Your task to perform on an android device: Open location settings Image 0: 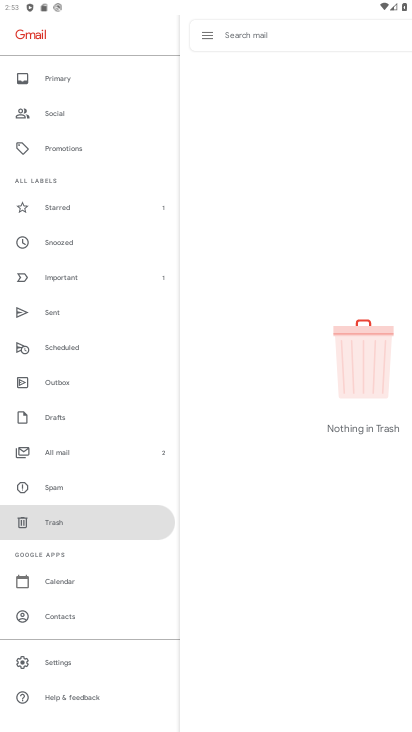
Step 0: press home button
Your task to perform on an android device: Open location settings Image 1: 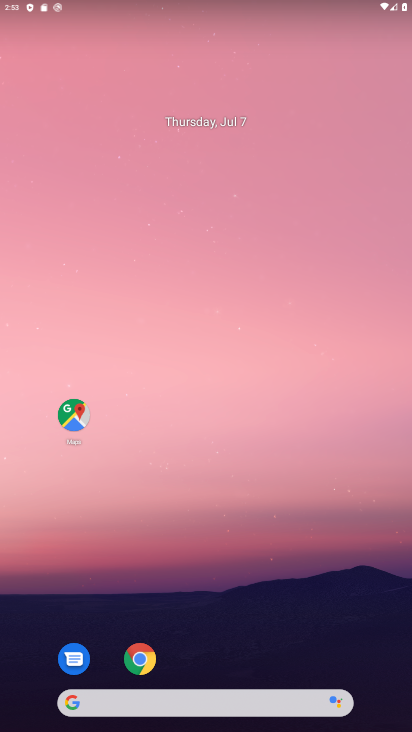
Step 1: drag from (226, 624) to (169, 169)
Your task to perform on an android device: Open location settings Image 2: 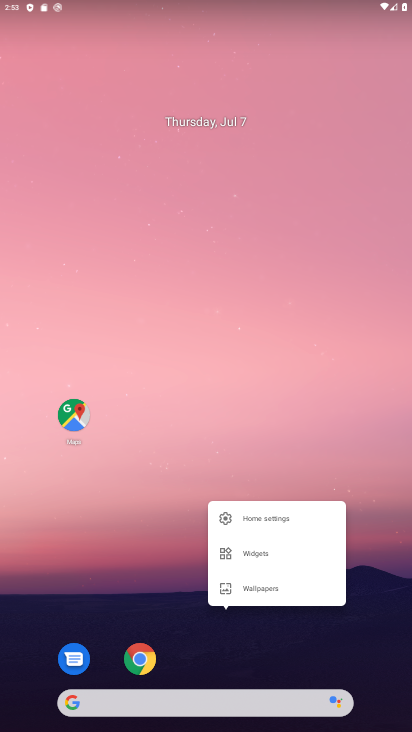
Step 2: click (397, 549)
Your task to perform on an android device: Open location settings Image 3: 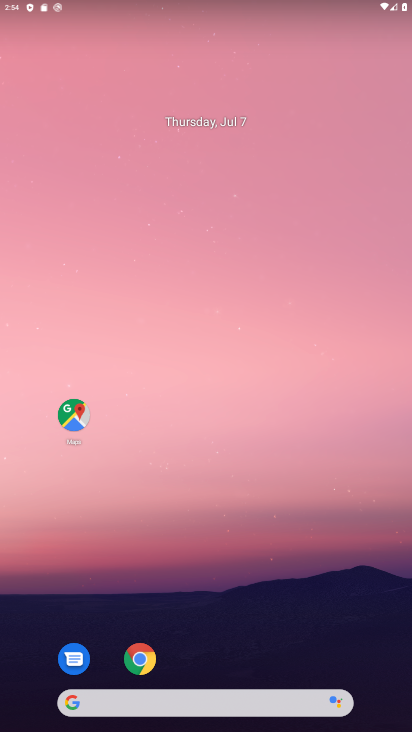
Step 3: drag from (270, 633) to (220, 436)
Your task to perform on an android device: Open location settings Image 4: 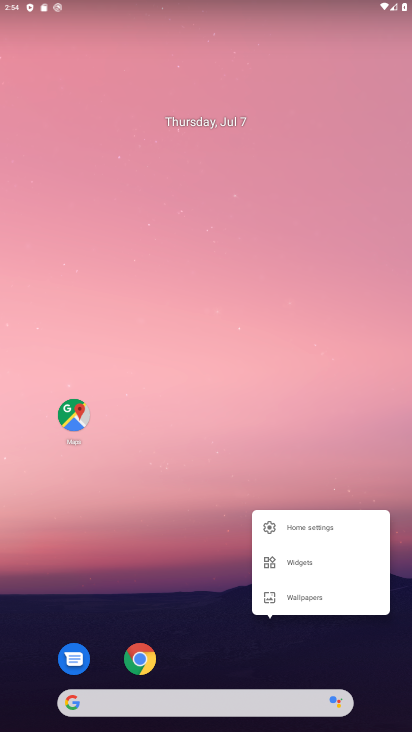
Step 4: drag from (229, 610) to (188, 269)
Your task to perform on an android device: Open location settings Image 5: 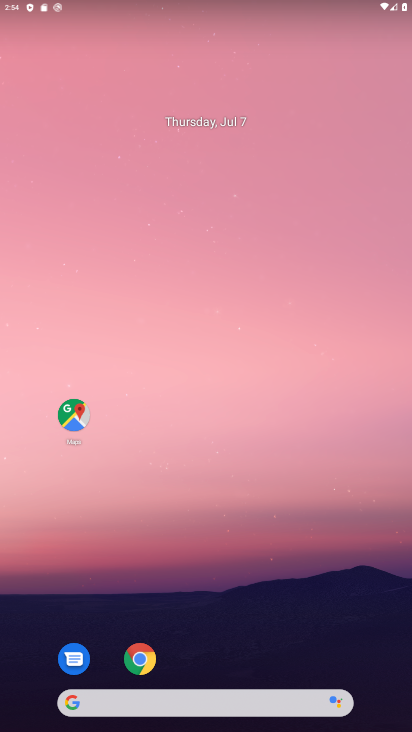
Step 5: drag from (395, 670) to (293, 151)
Your task to perform on an android device: Open location settings Image 6: 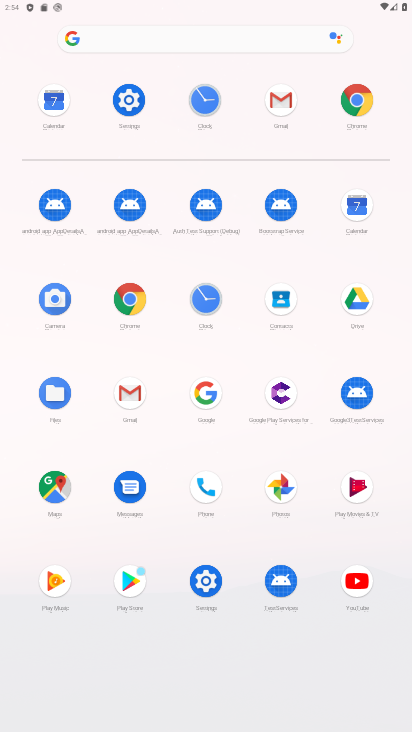
Step 6: click (130, 96)
Your task to perform on an android device: Open location settings Image 7: 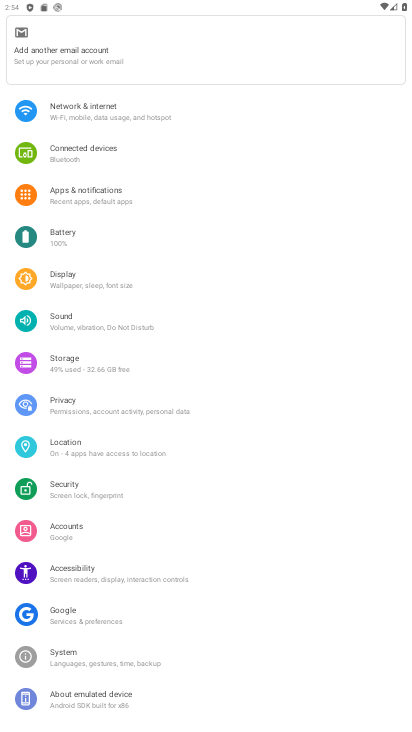
Step 7: click (160, 443)
Your task to perform on an android device: Open location settings Image 8: 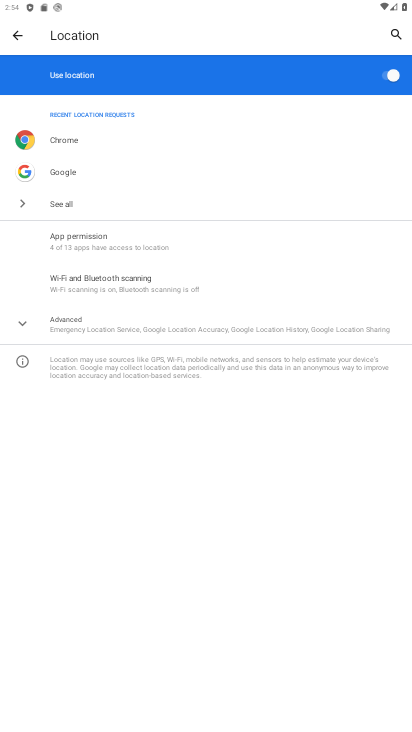
Step 8: task complete